Your task to perform on an android device: install app "PlayWell" Image 0: 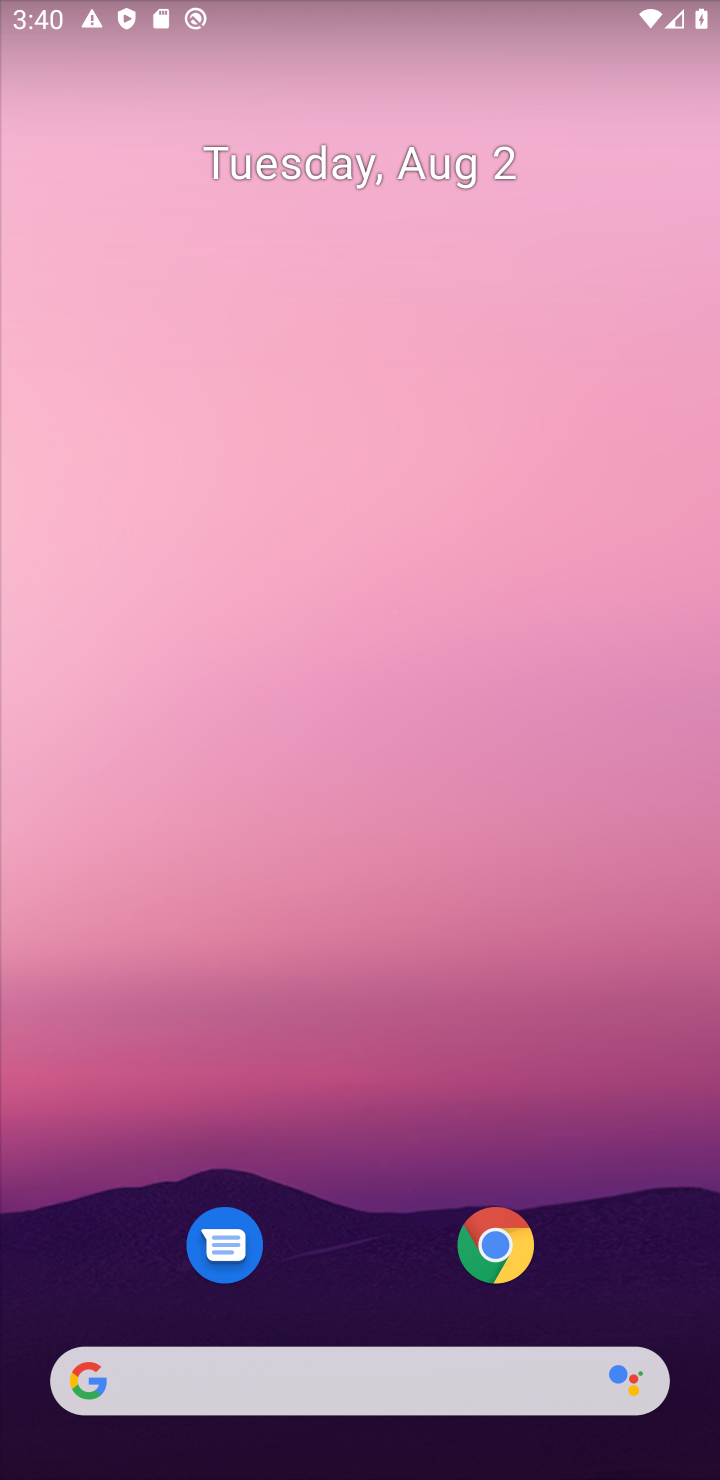
Step 0: drag from (386, 1224) to (401, 132)
Your task to perform on an android device: install app "PlayWell" Image 1: 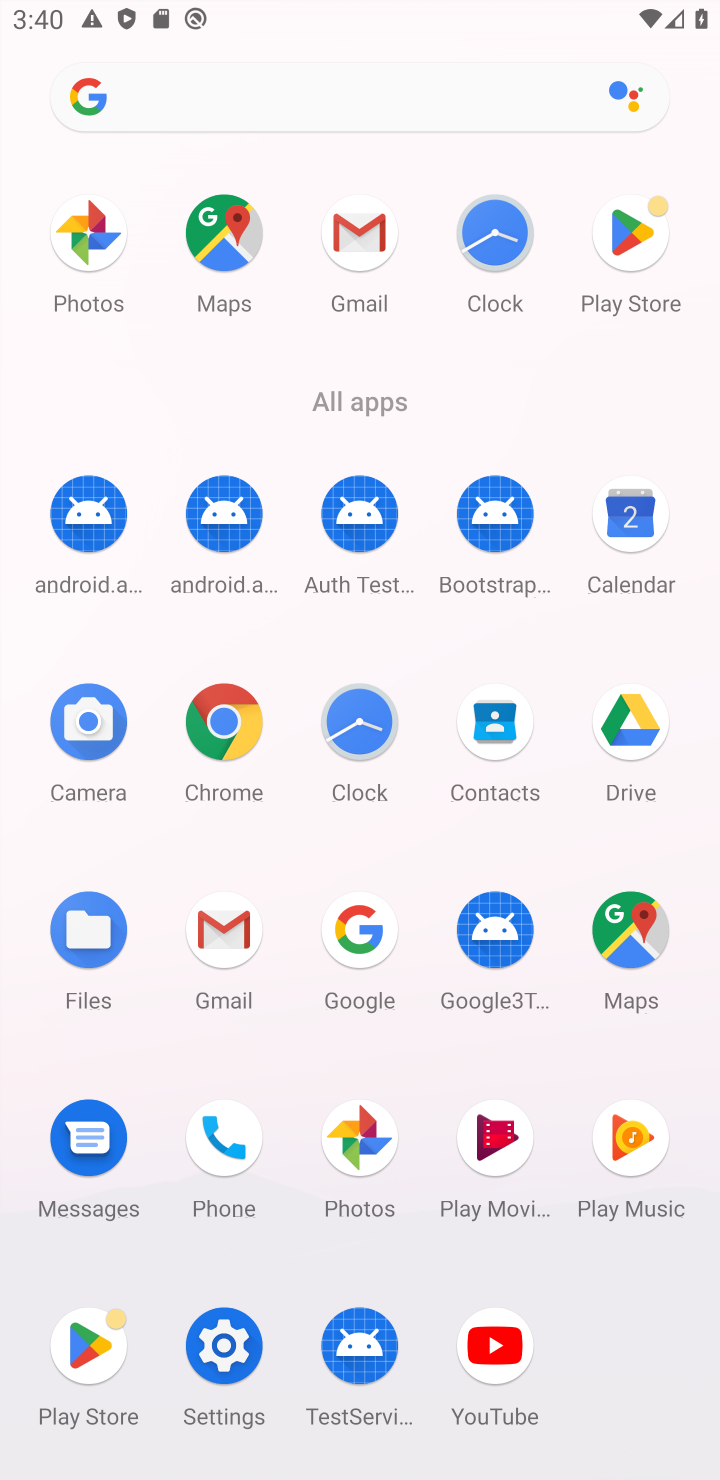
Step 1: click (620, 241)
Your task to perform on an android device: install app "PlayWell" Image 2: 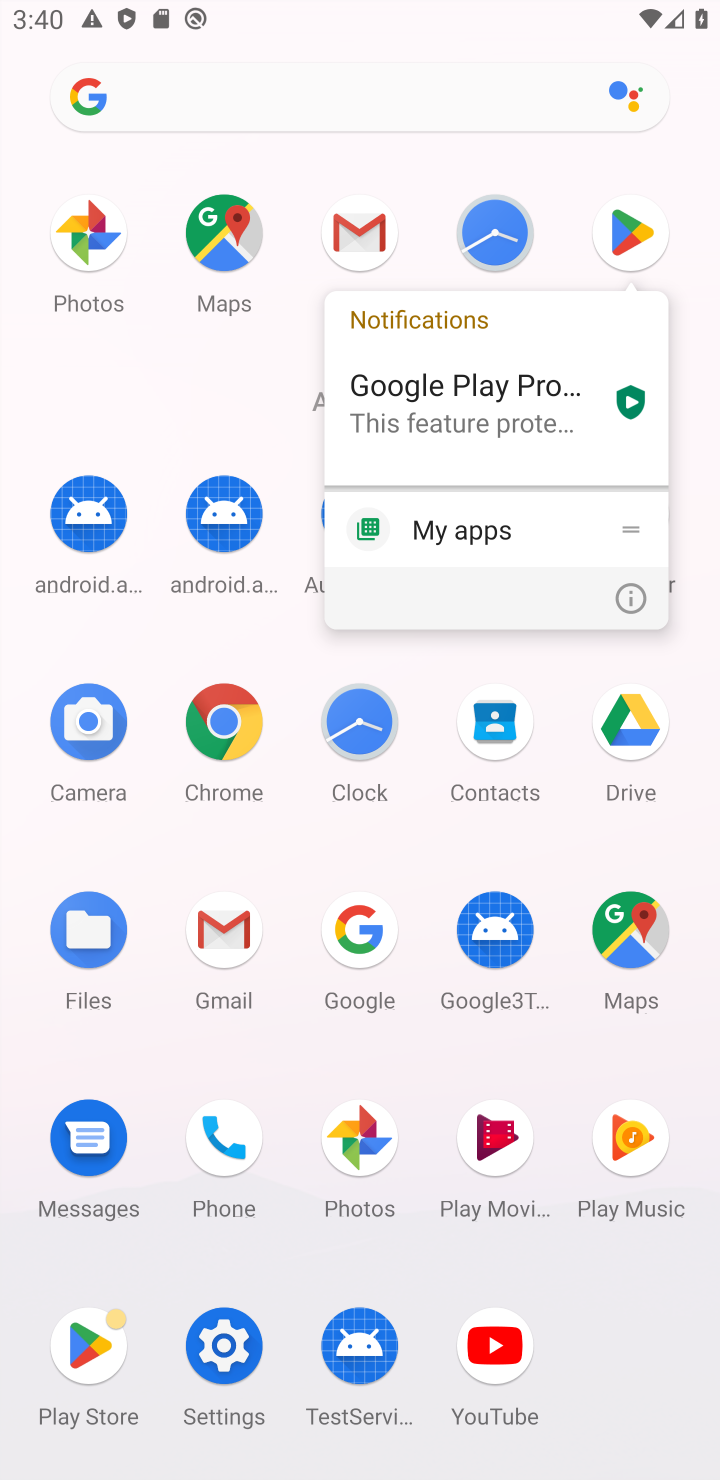
Step 2: click (620, 241)
Your task to perform on an android device: install app "PlayWell" Image 3: 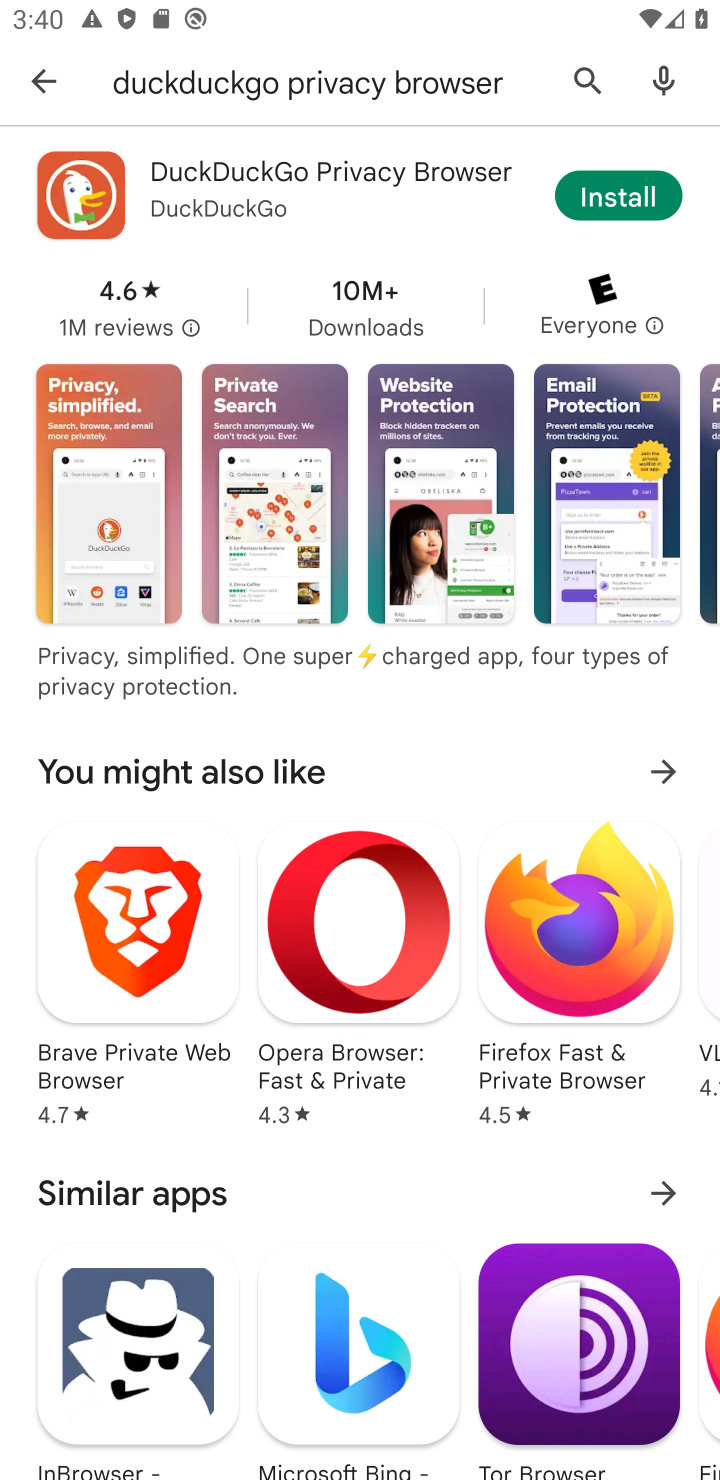
Step 3: click (587, 72)
Your task to perform on an android device: install app "PlayWell" Image 4: 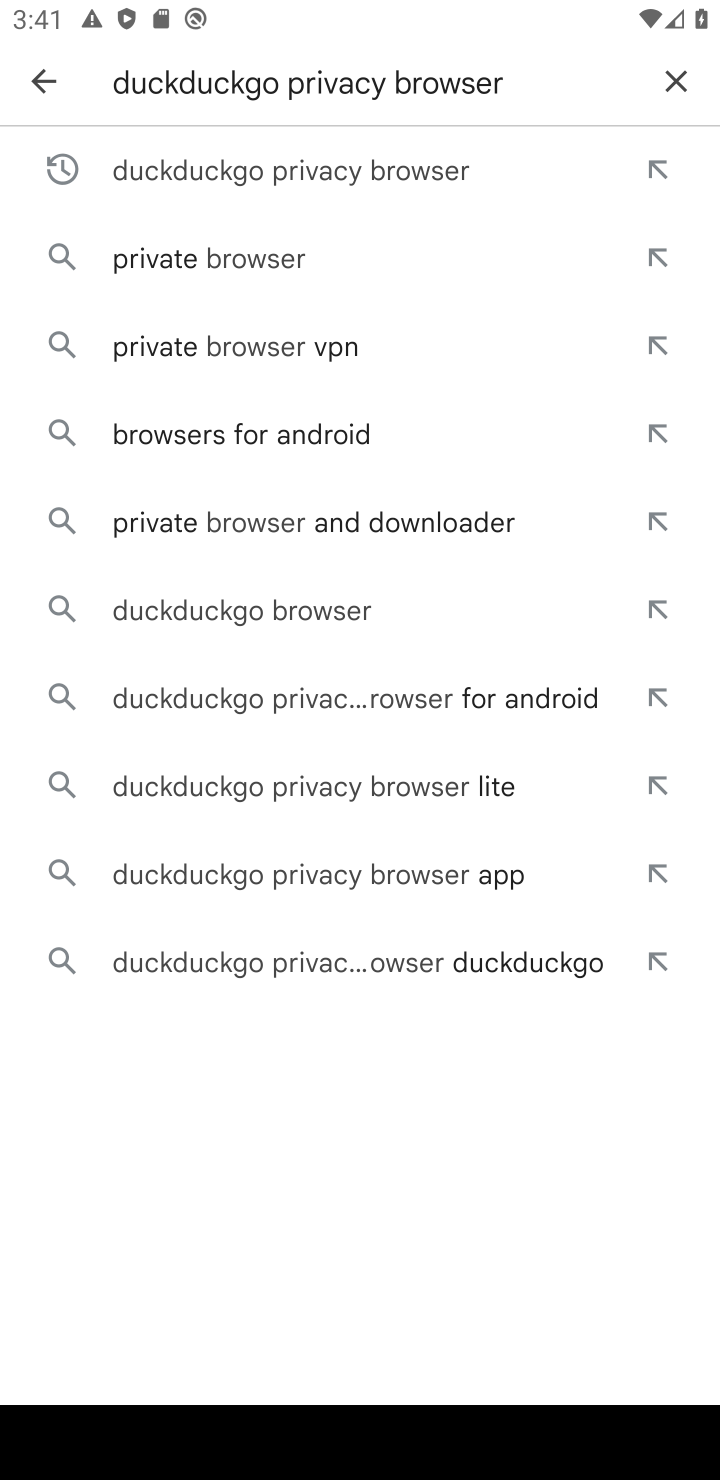
Step 4: click (666, 78)
Your task to perform on an android device: install app "PlayWell" Image 5: 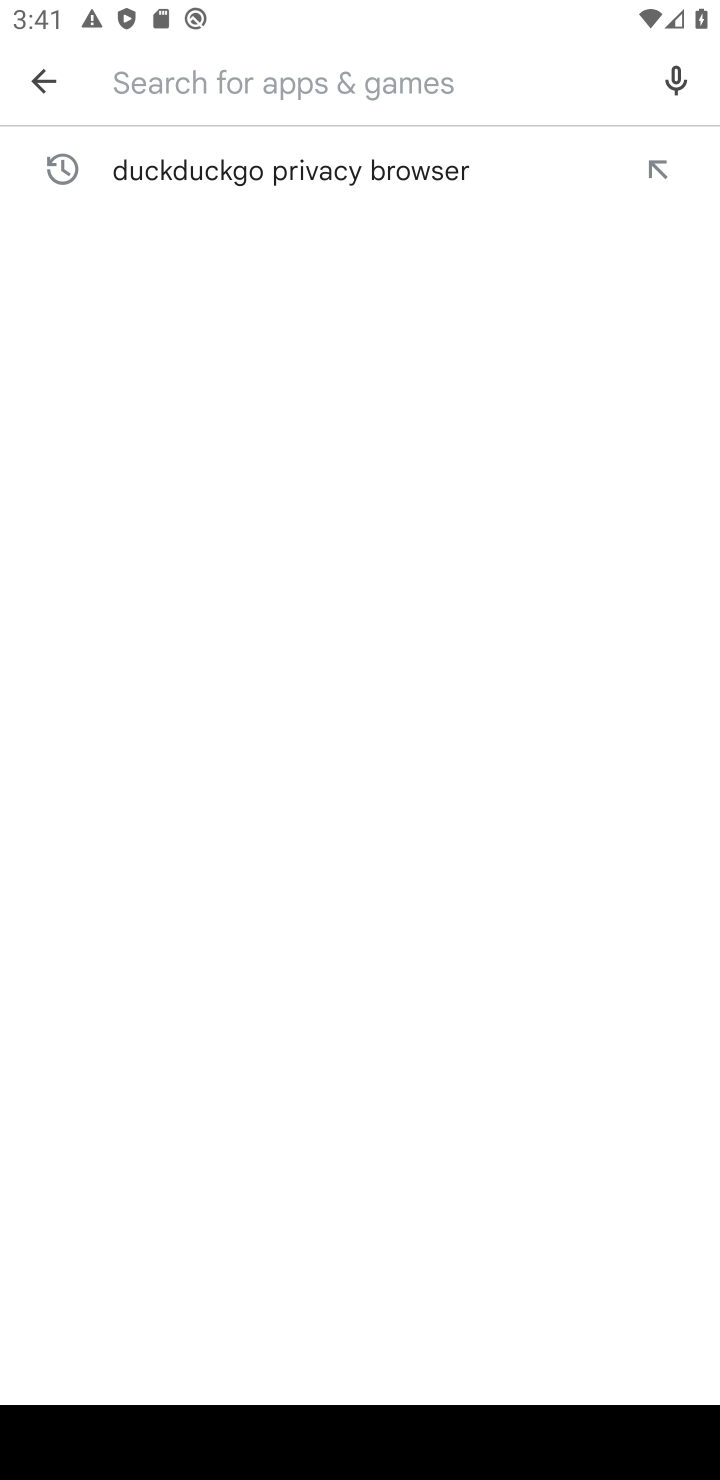
Step 5: type "PlayWell"
Your task to perform on an android device: install app "PlayWell" Image 6: 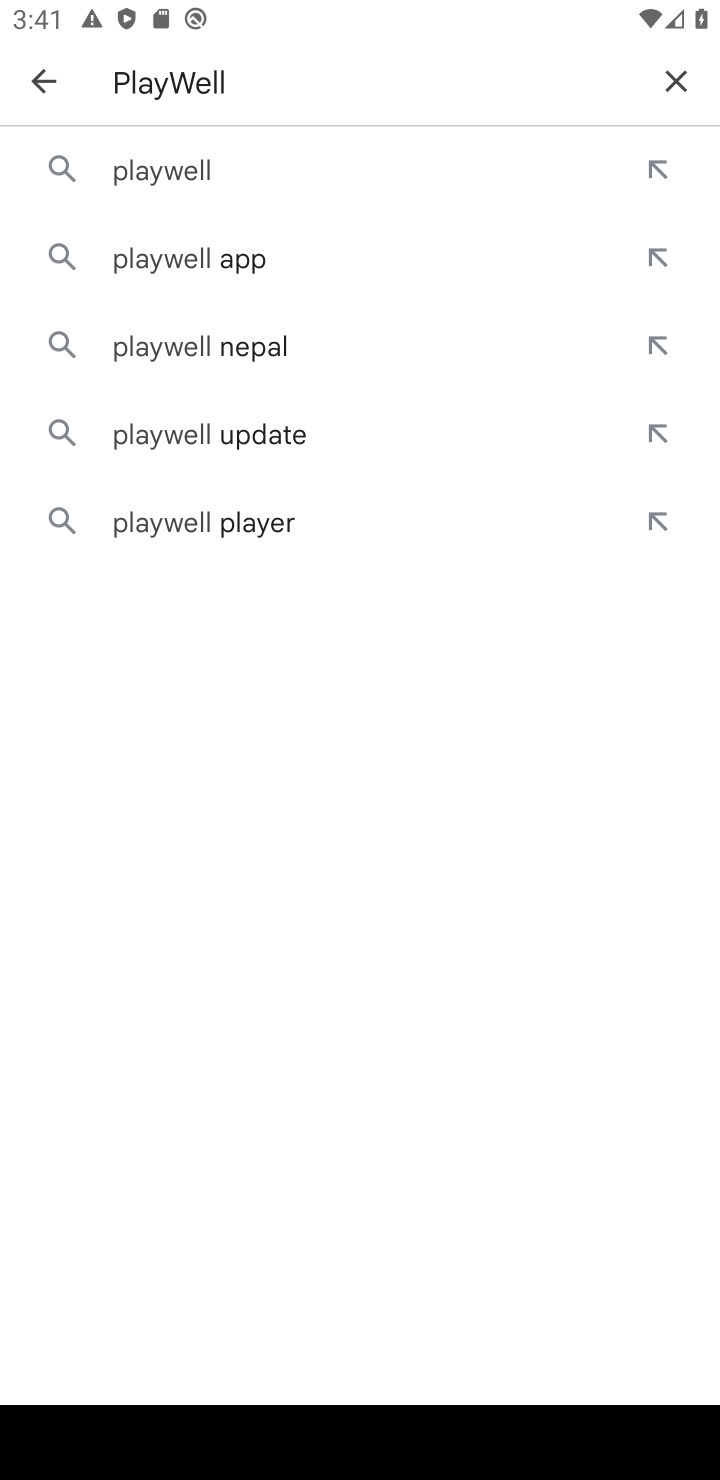
Step 6: click (160, 181)
Your task to perform on an android device: install app "PlayWell" Image 7: 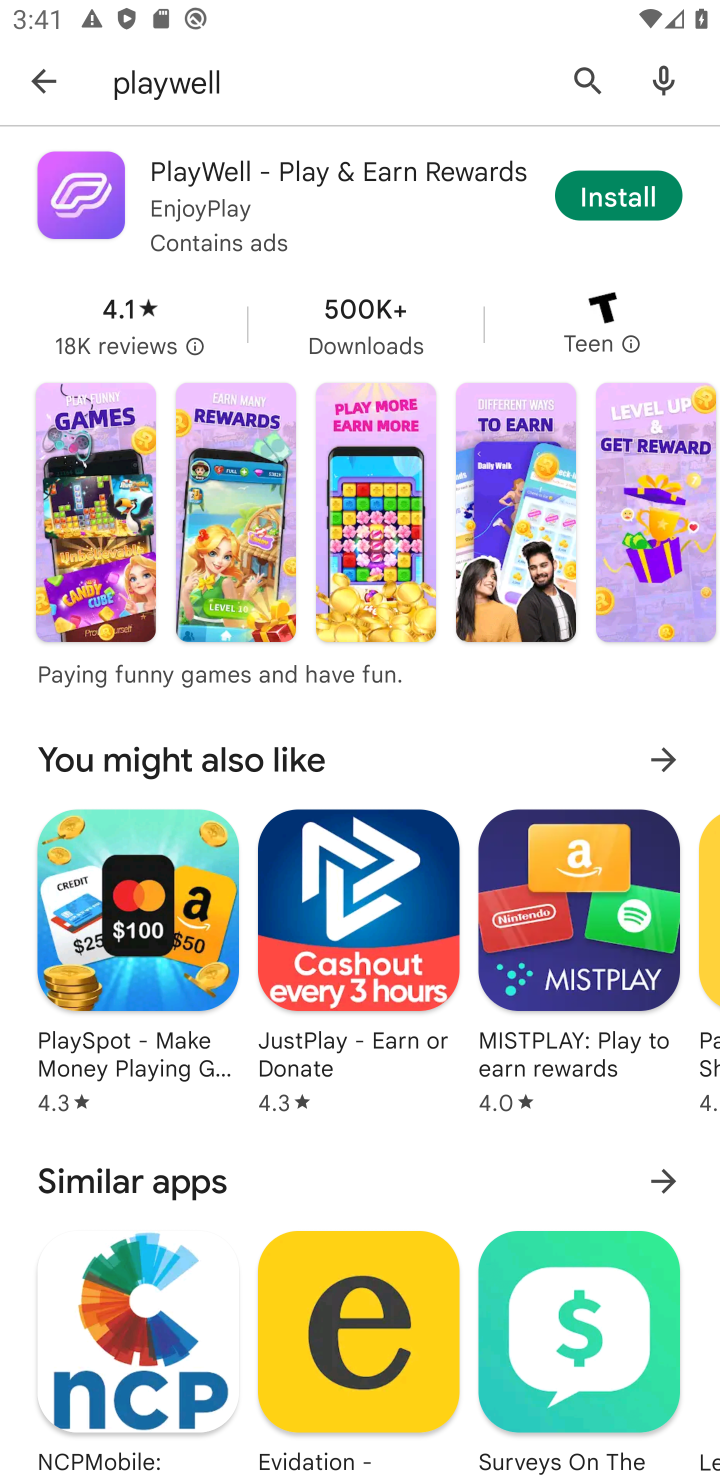
Step 7: click (611, 204)
Your task to perform on an android device: install app "PlayWell" Image 8: 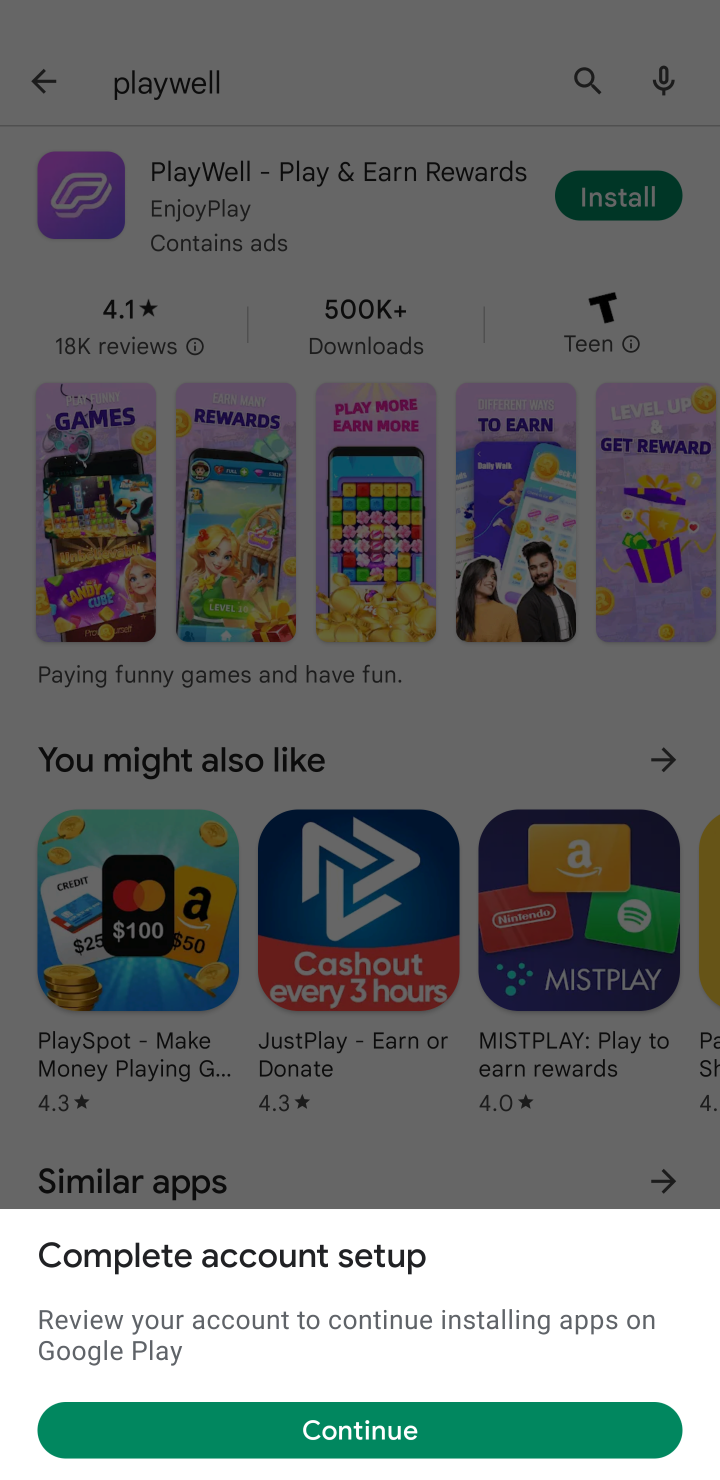
Step 8: click (273, 1430)
Your task to perform on an android device: install app "PlayWell" Image 9: 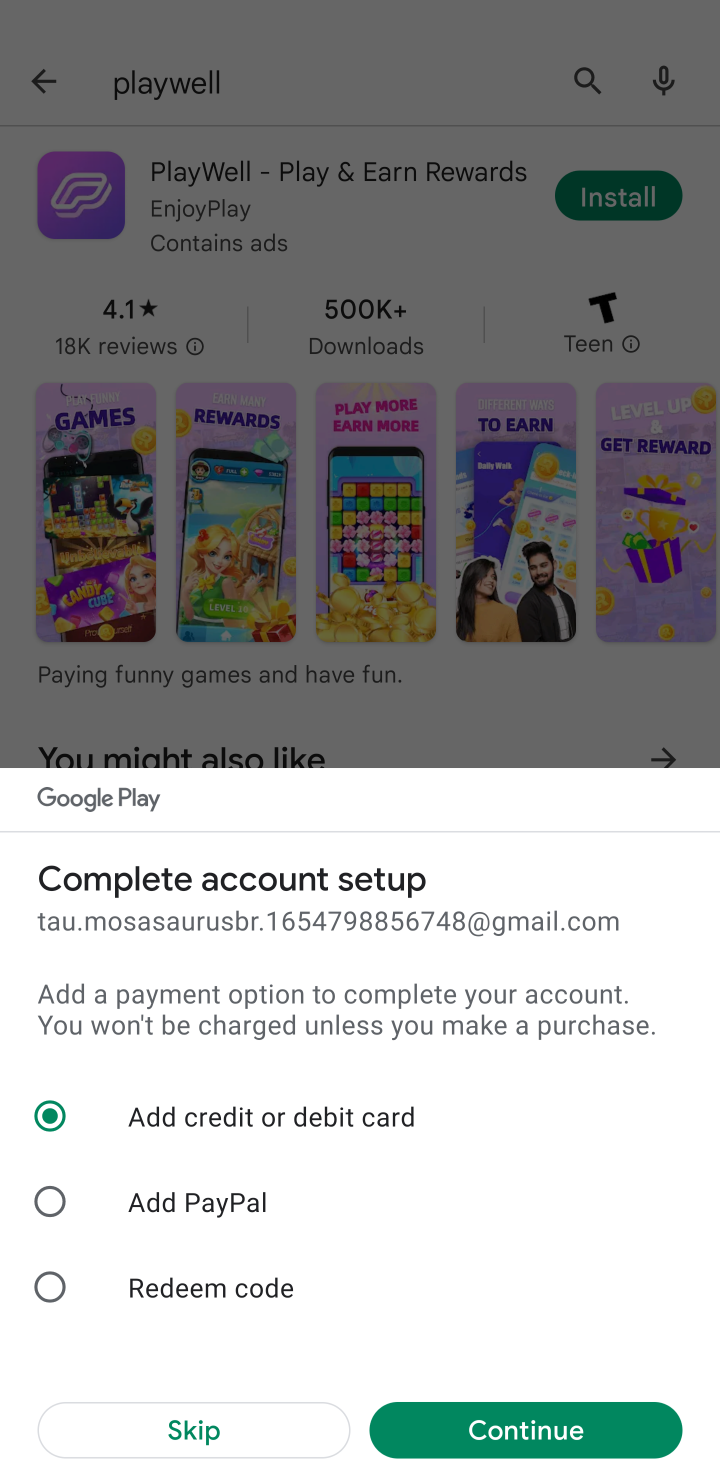
Step 9: click (201, 1433)
Your task to perform on an android device: install app "PlayWell" Image 10: 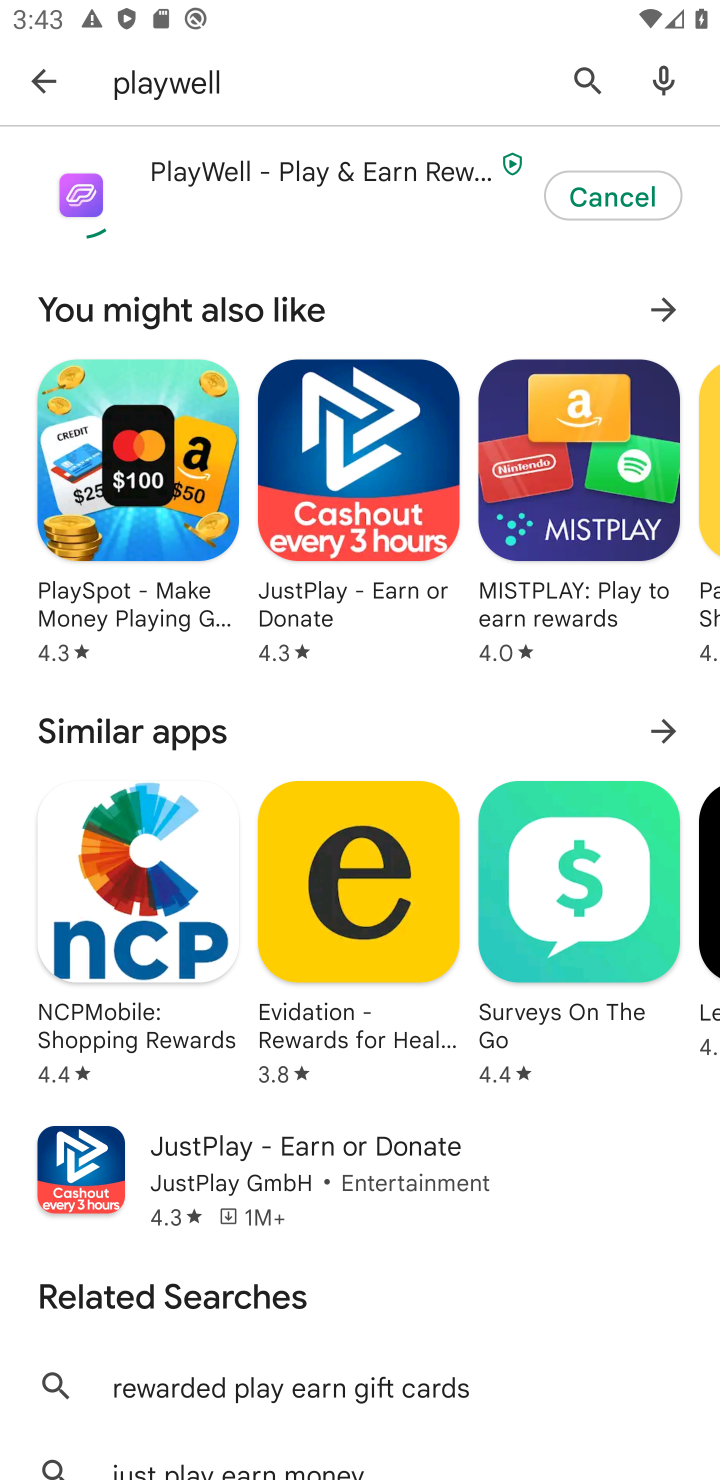
Step 10: click (606, 200)
Your task to perform on an android device: install app "PlayWell" Image 11: 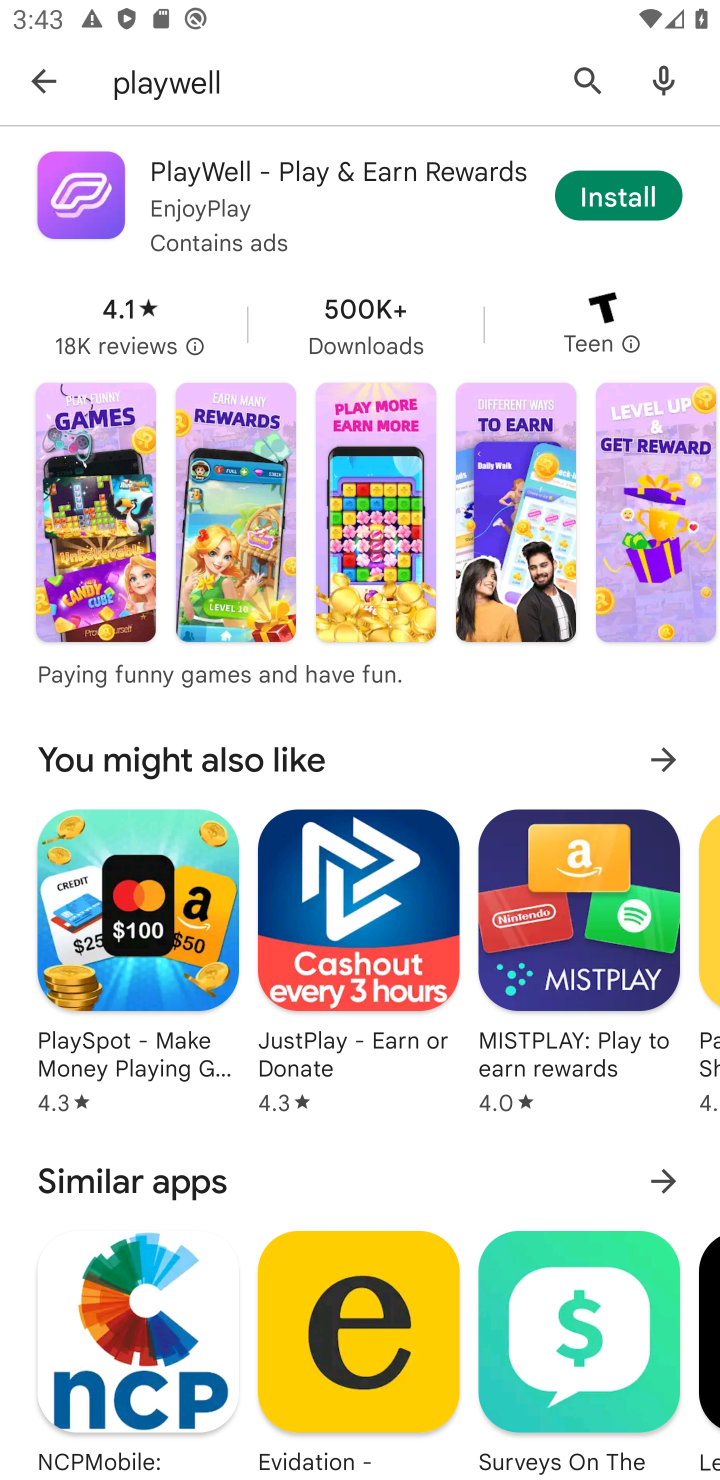
Step 11: click (606, 200)
Your task to perform on an android device: install app "PlayWell" Image 12: 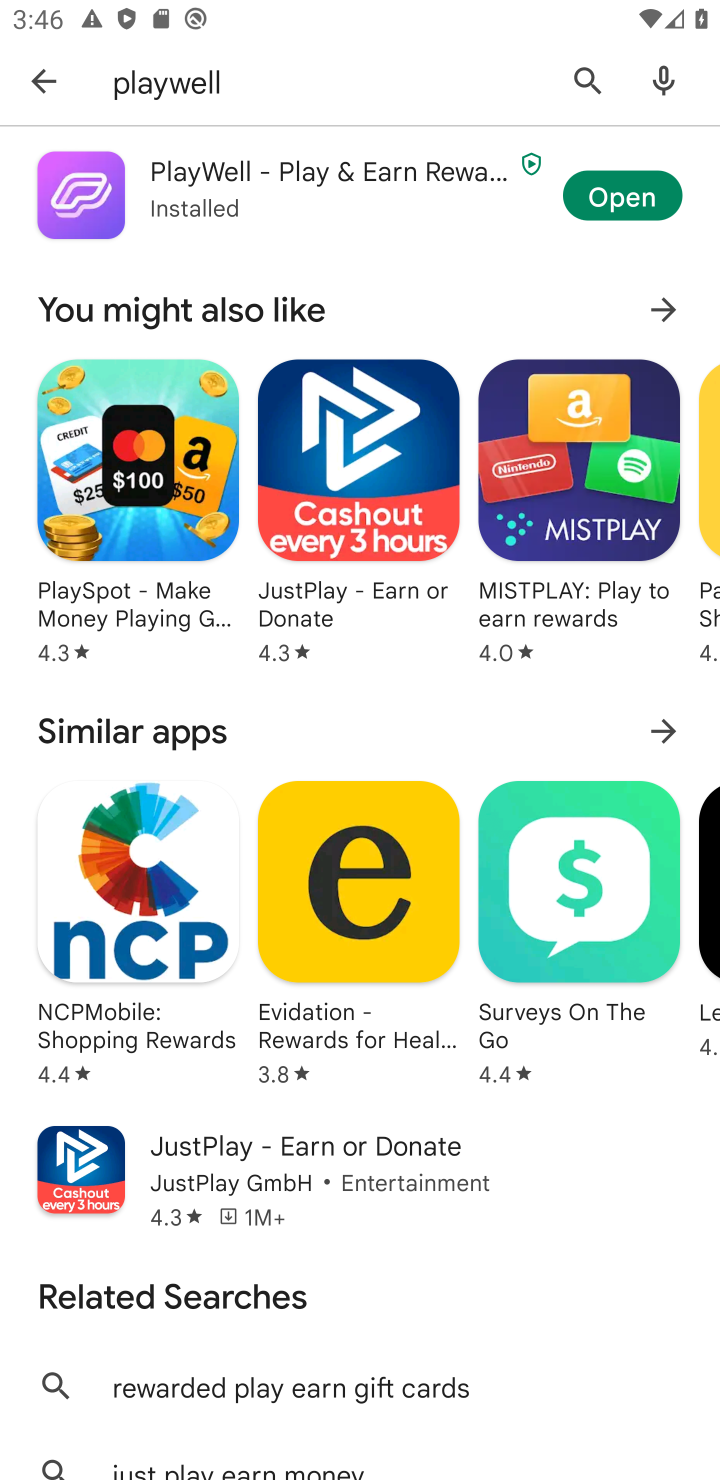
Step 12: task complete